Your task to perform on an android device: toggle data saver in the chrome app Image 0: 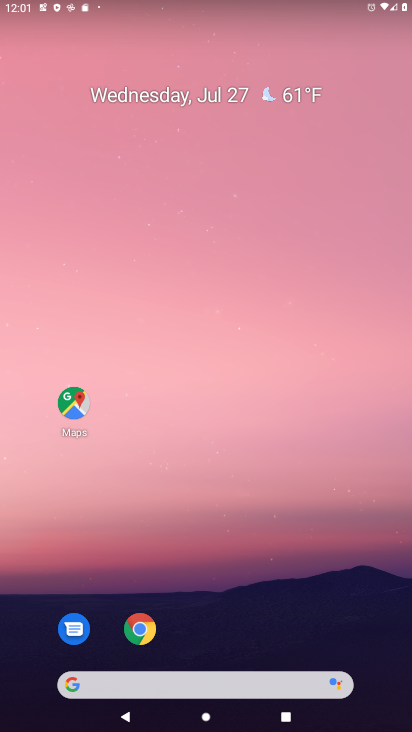
Step 0: click (139, 644)
Your task to perform on an android device: toggle data saver in the chrome app Image 1: 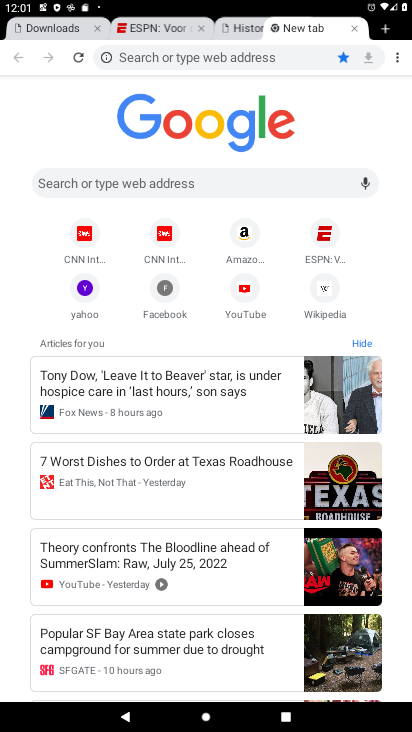
Step 1: click (398, 65)
Your task to perform on an android device: toggle data saver in the chrome app Image 2: 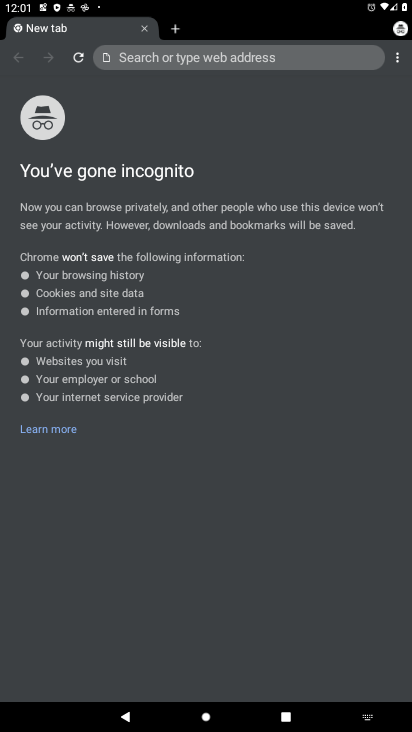
Step 2: click (393, 55)
Your task to perform on an android device: toggle data saver in the chrome app Image 3: 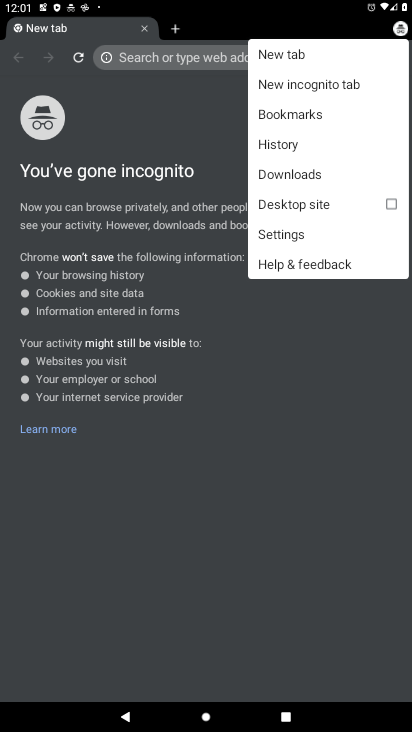
Step 3: click (304, 250)
Your task to perform on an android device: toggle data saver in the chrome app Image 4: 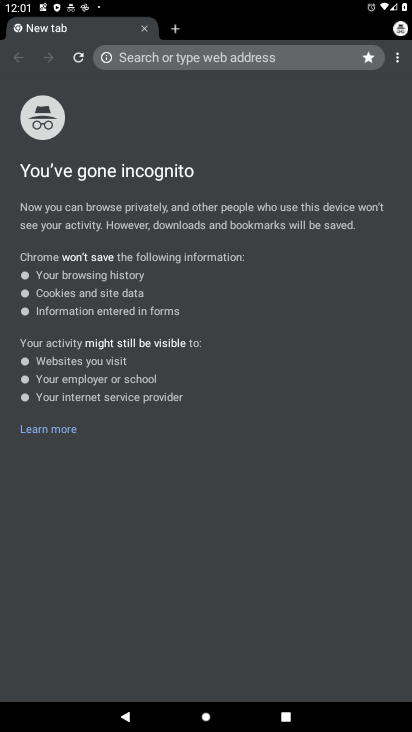
Step 4: click (304, 241)
Your task to perform on an android device: toggle data saver in the chrome app Image 5: 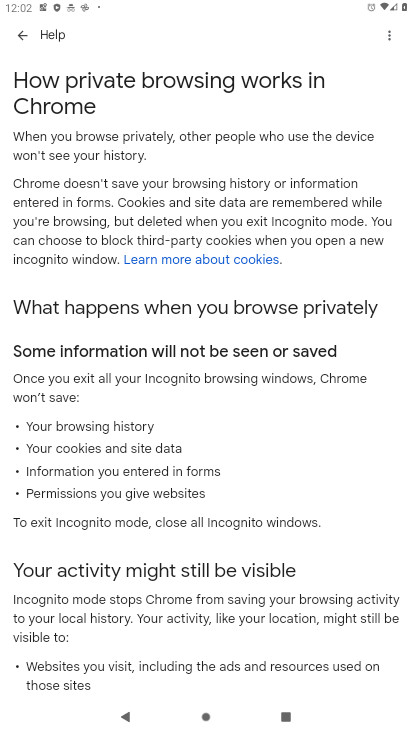
Step 5: task complete